Your task to perform on an android device: toggle improve location accuracy Image 0: 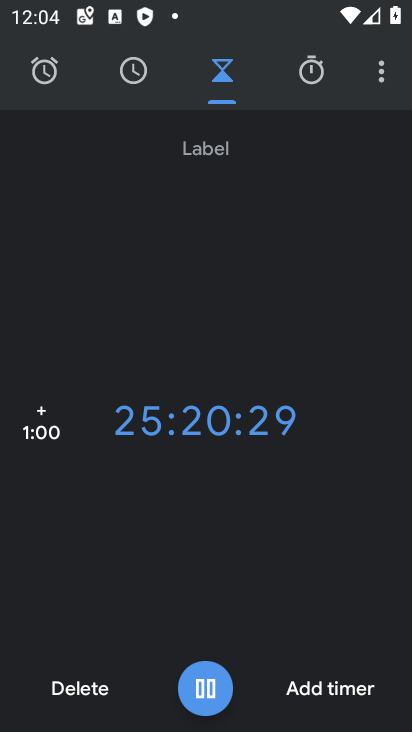
Step 0: press home button
Your task to perform on an android device: toggle improve location accuracy Image 1: 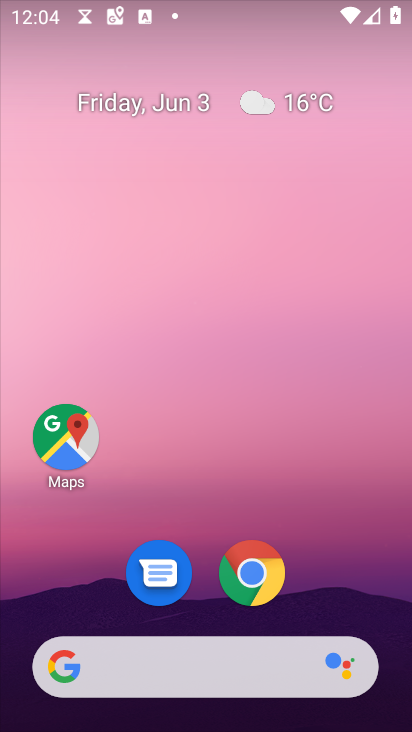
Step 1: drag from (348, 299) to (408, 133)
Your task to perform on an android device: toggle improve location accuracy Image 2: 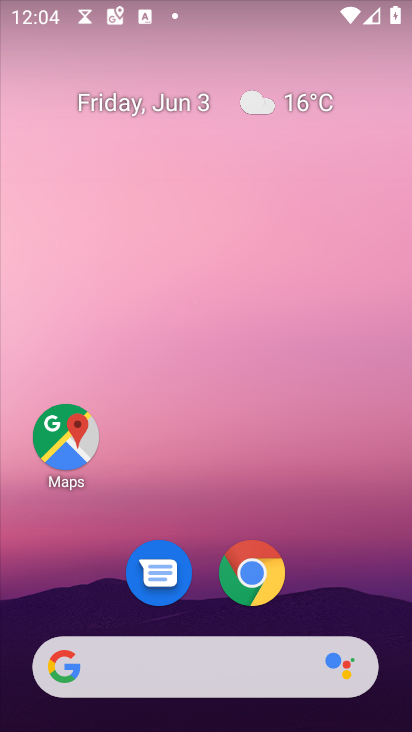
Step 2: drag from (329, 579) to (269, 101)
Your task to perform on an android device: toggle improve location accuracy Image 3: 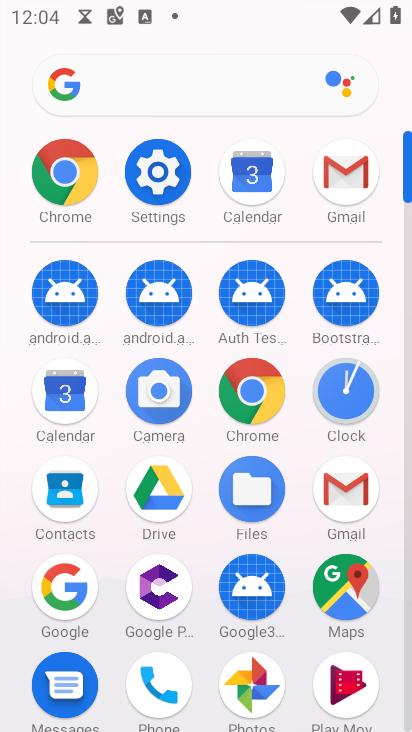
Step 3: click (177, 195)
Your task to perform on an android device: toggle improve location accuracy Image 4: 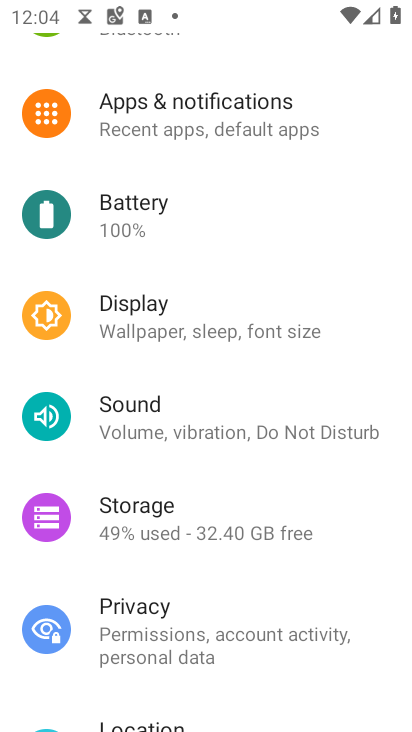
Step 4: drag from (198, 642) to (272, 158)
Your task to perform on an android device: toggle improve location accuracy Image 5: 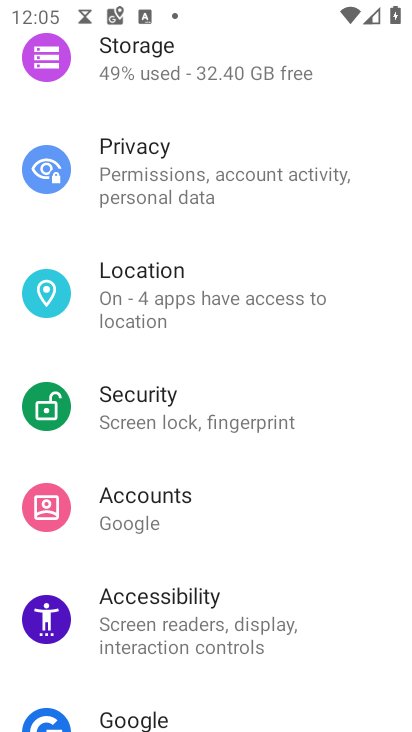
Step 5: click (172, 303)
Your task to perform on an android device: toggle improve location accuracy Image 6: 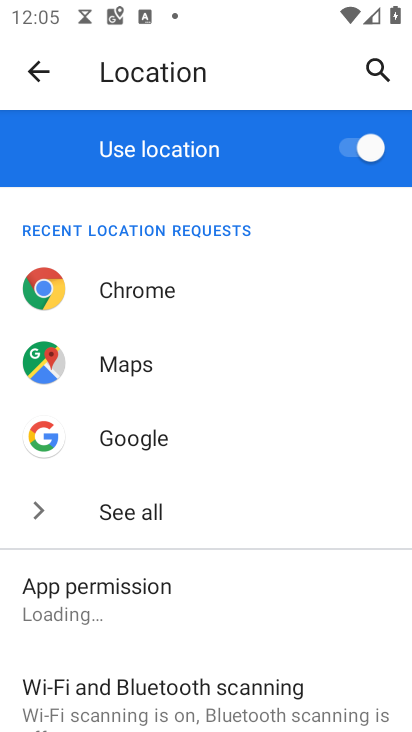
Step 6: drag from (189, 552) to (222, 208)
Your task to perform on an android device: toggle improve location accuracy Image 7: 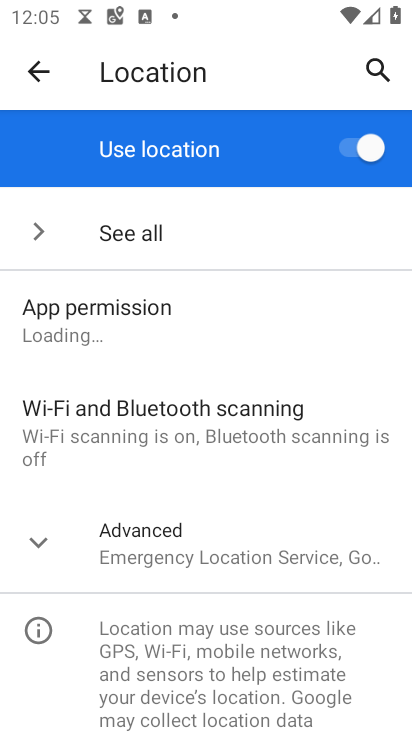
Step 7: click (147, 519)
Your task to perform on an android device: toggle improve location accuracy Image 8: 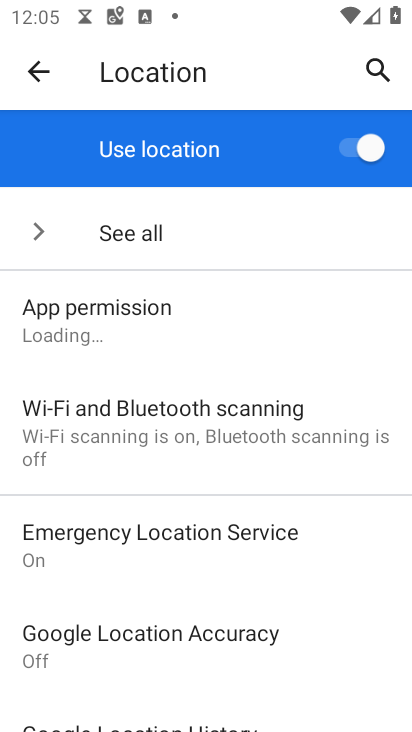
Step 8: click (150, 636)
Your task to perform on an android device: toggle improve location accuracy Image 9: 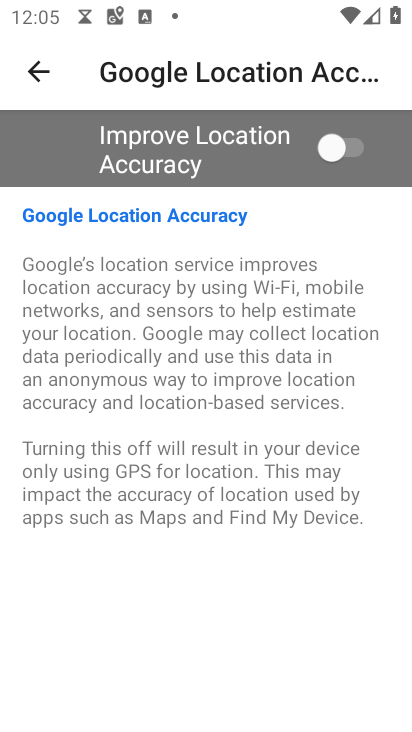
Step 9: click (346, 132)
Your task to perform on an android device: toggle improve location accuracy Image 10: 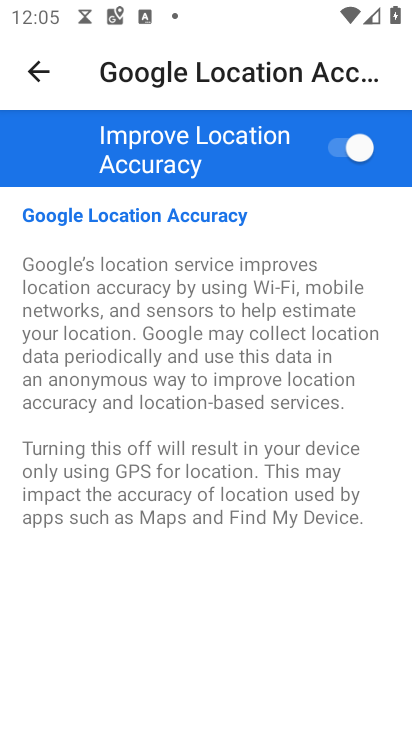
Step 10: task complete